Your task to perform on an android device: turn on javascript in the chrome app Image 0: 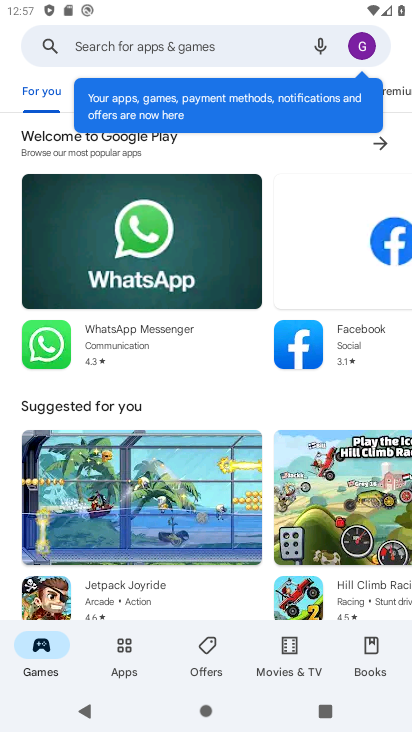
Step 0: task complete